Your task to perform on an android device: change the clock style Image 0: 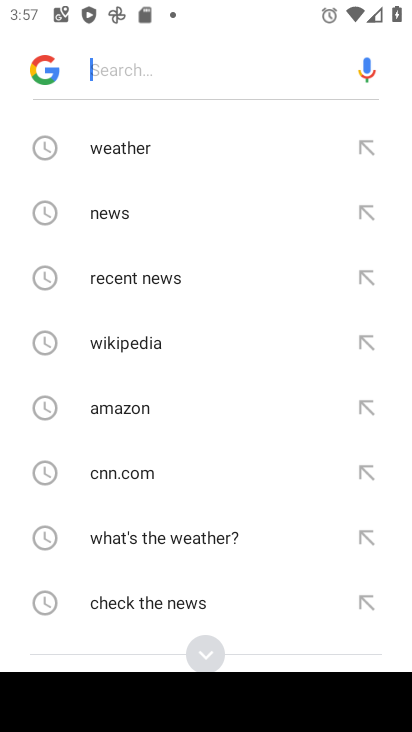
Step 0: press back button
Your task to perform on an android device: change the clock style Image 1: 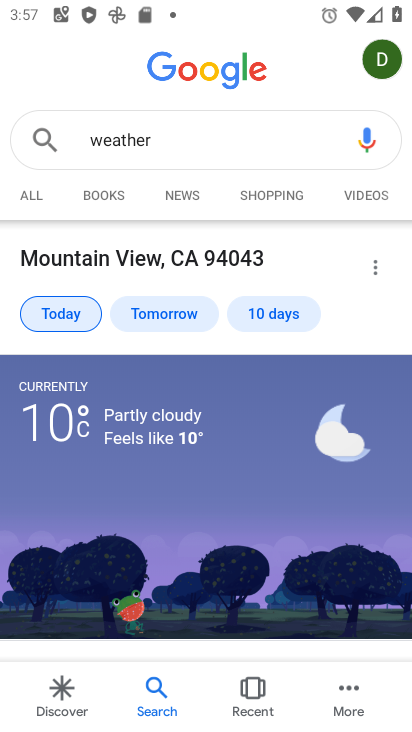
Step 1: press back button
Your task to perform on an android device: change the clock style Image 2: 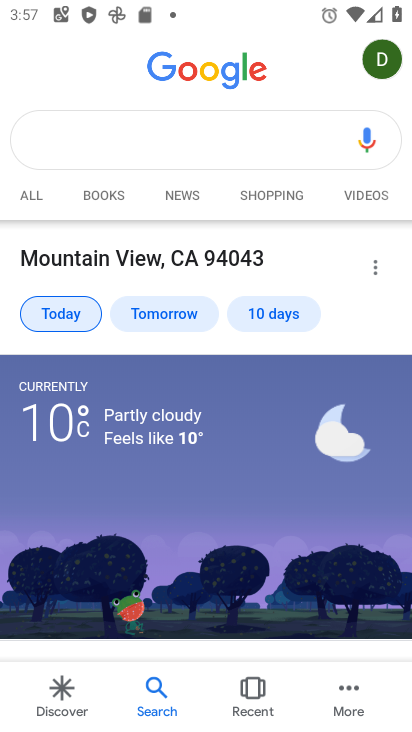
Step 2: press back button
Your task to perform on an android device: change the clock style Image 3: 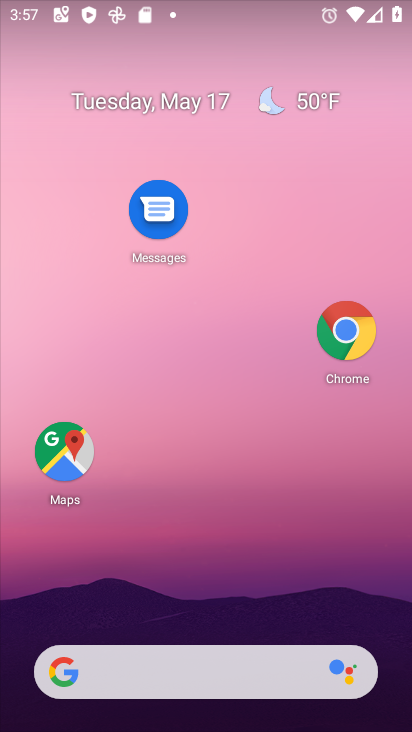
Step 3: drag from (193, 607) to (166, 92)
Your task to perform on an android device: change the clock style Image 4: 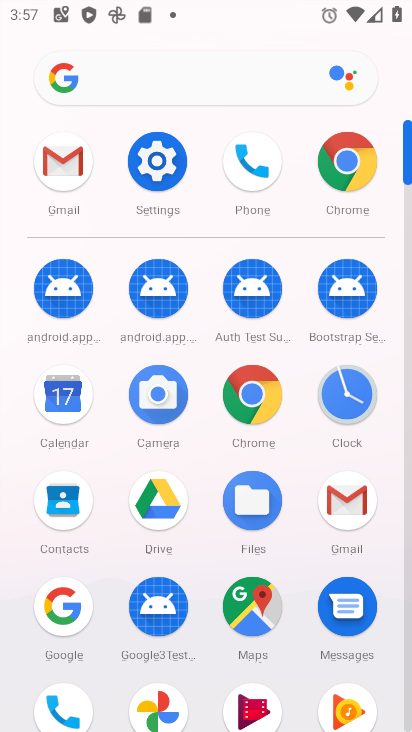
Step 4: click (348, 431)
Your task to perform on an android device: change the clock style Image 5: 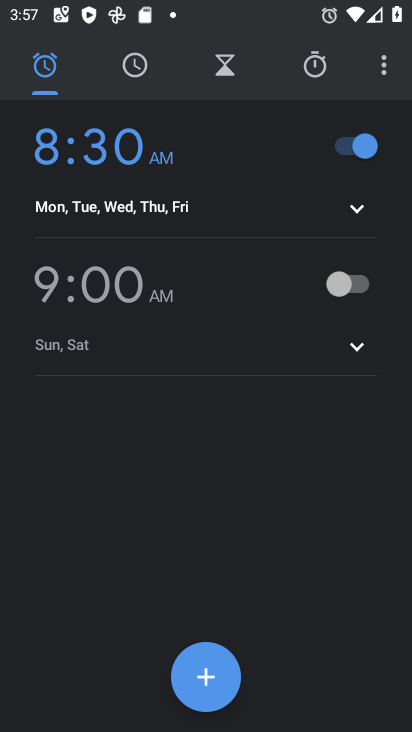
Step 5: task complete